Your task to perform on an android device: toggle sleep mode Image 0: 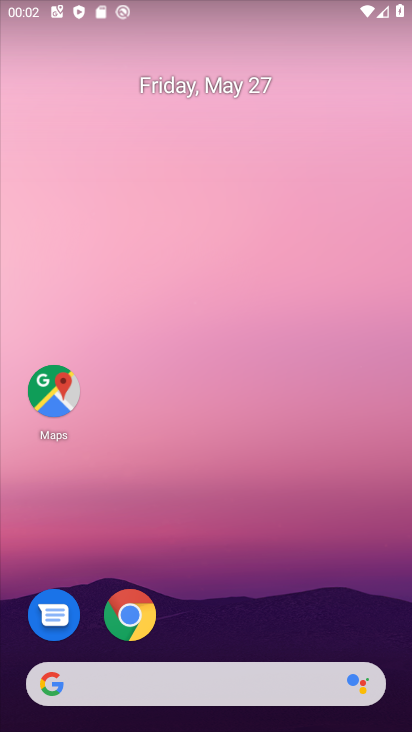
Step 0: press home button
Your task to perform on an android device: toggle sleep mode Image 1: 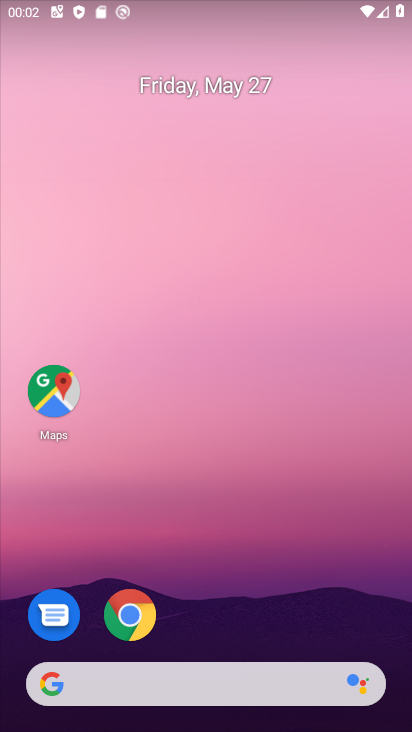
Step 1: drag from (296, 620) to (262, 133)
Your task to perform on an android device: toggle sleep mode Image 2: 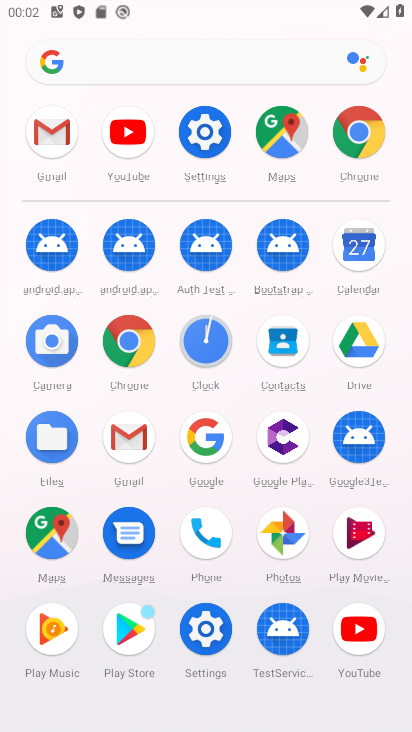
Step 2: click (218, 134)
Your task to perform on an android device: toggle sleep mode Image 3: 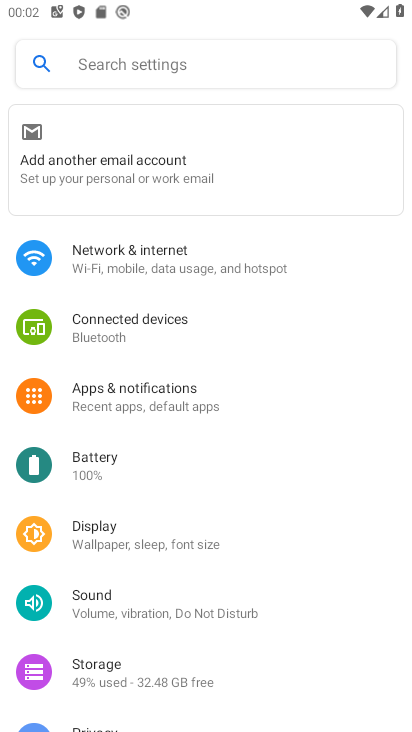
Step 3: click (105, 531)
Your task to perform on an android device: toggle sleep mode Image 4: 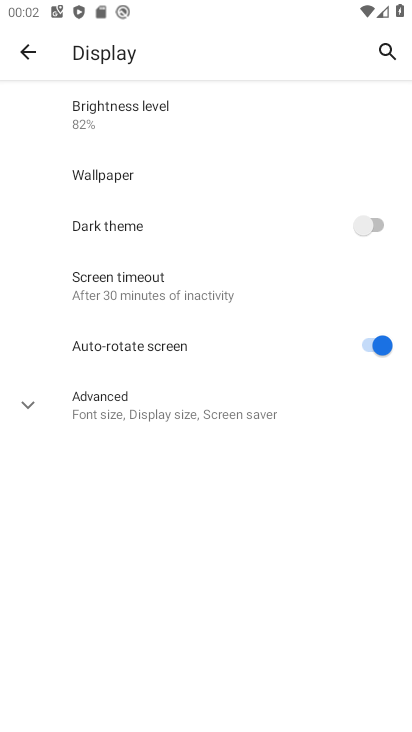
Step 4: task complete